Your task to perform on an android device: Open settings Image 0: 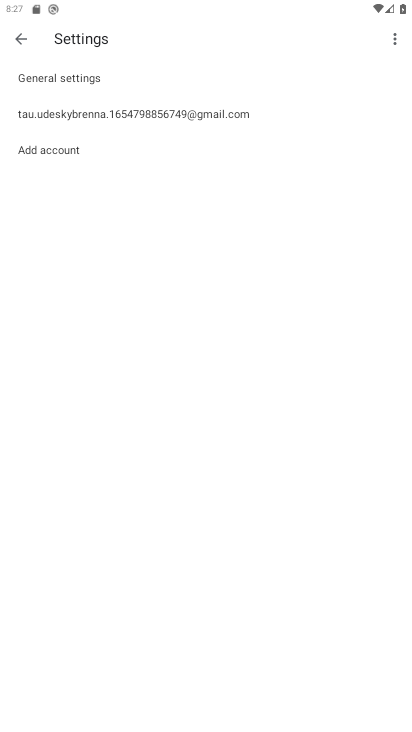
Step 0: press home button
Your task to perform on an android device: Open settings Image 1: 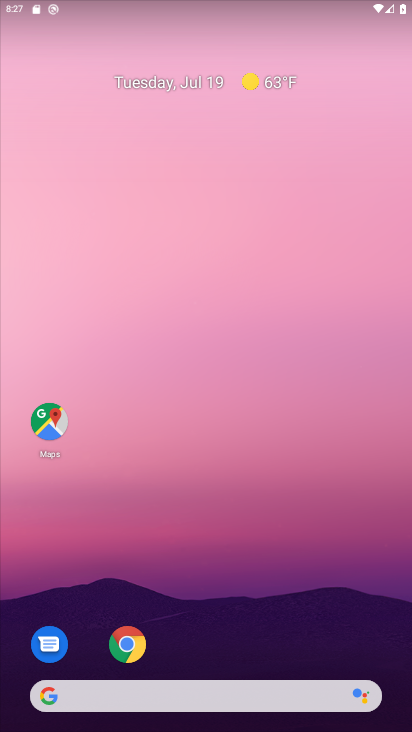
Step 1: drag from (281, 705) to (144, 58)
Your task to perform on an android device: Open settings Image 2: 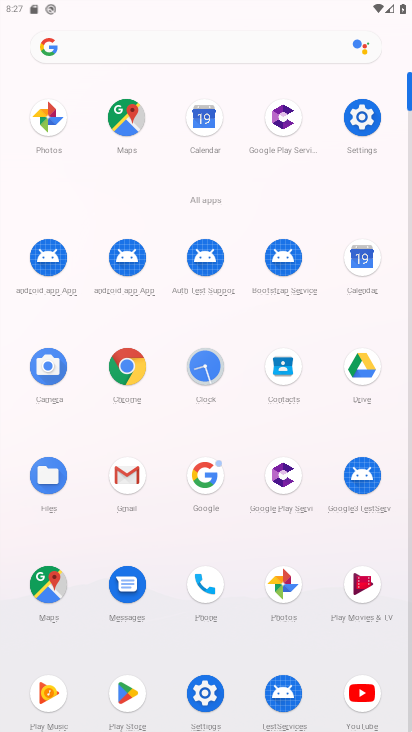
Step 2: click (361, 113)
Your task to perform on an android device: Open settings Image 3: 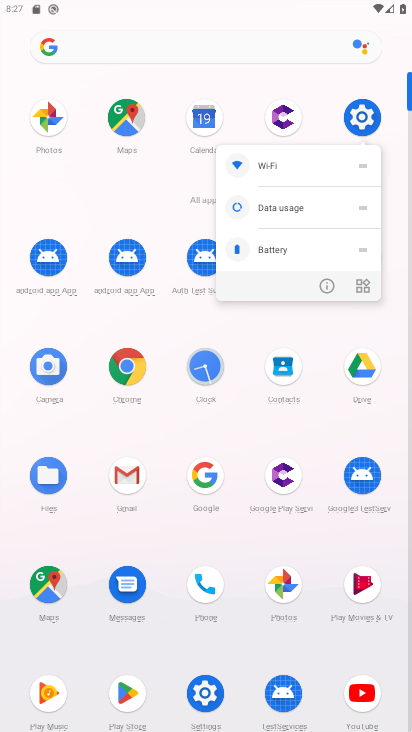
Step 3: click (361, 114)
Your task to perform on an android device: Open settings Image 4: 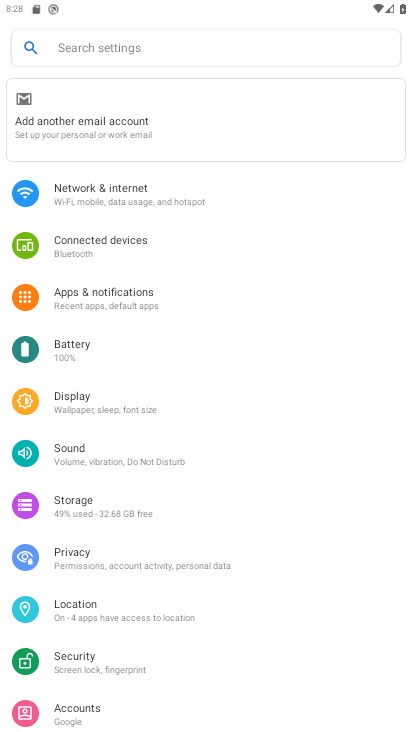
Step 4: task complete